Your task to perform on an android device: find snoozed emails in the gmail app Image 0: 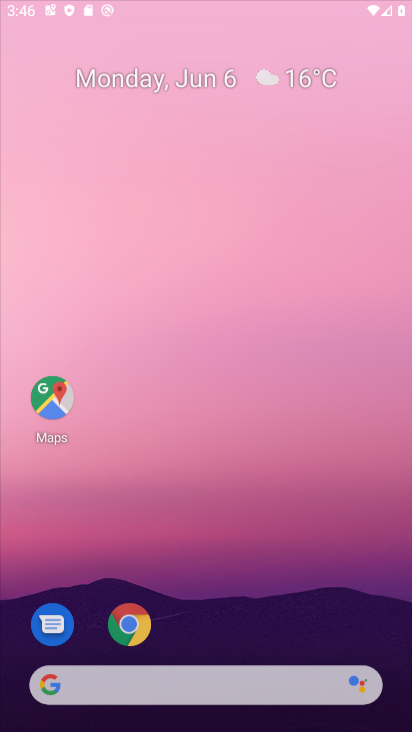
Step 0: press home button
Your task to perform on an android device: find snoozed emails in the gmail app Image 1: 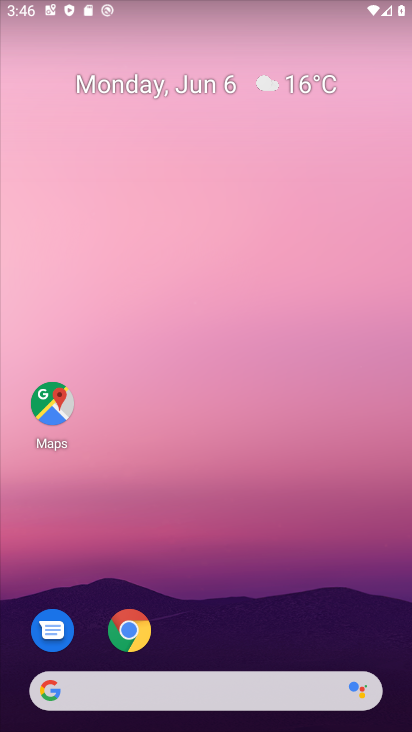
Step 1: drag from (336, 546) to (144, 31)
Your task to perform on an android device: find snoozed emails in the gmail app Image 2: 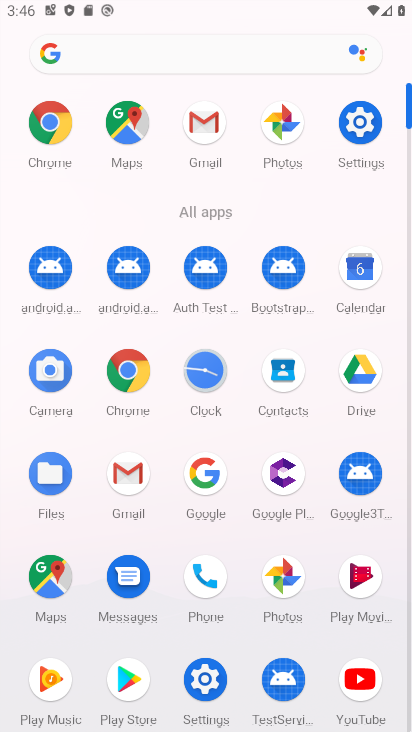
Step 2: click (200, 121)
Your task to perform on an android device: find snoozed emails in the gmail app Image 3: 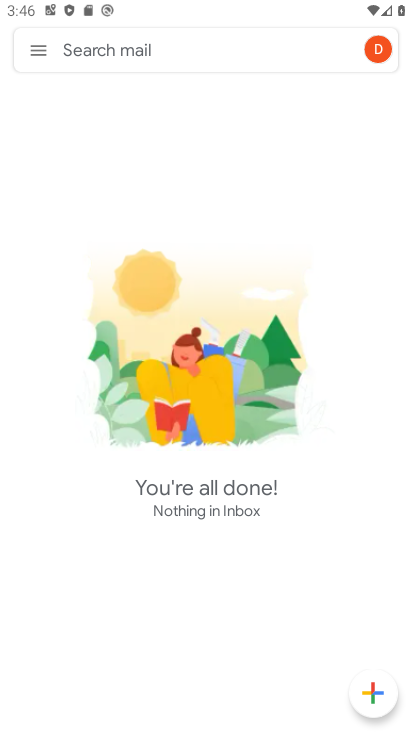
Step 3: click (36, 52)
Your task to perform on an android device: find snoozed emails in the gmail app Image 4: 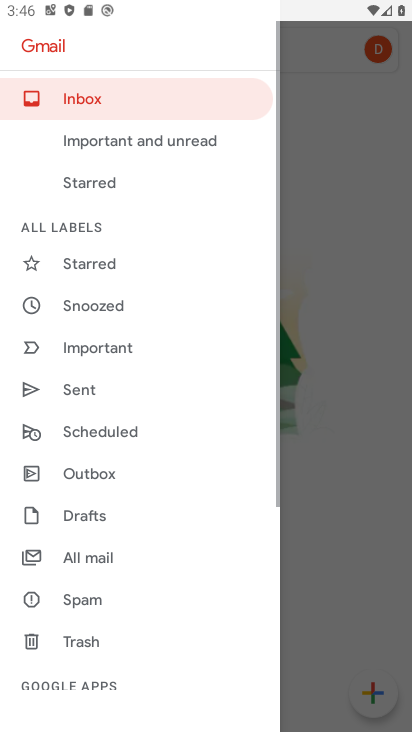
Step 4: click (105, 316)
Your task to perform on an android device: find snoozed emails in the gmail app Image 5: 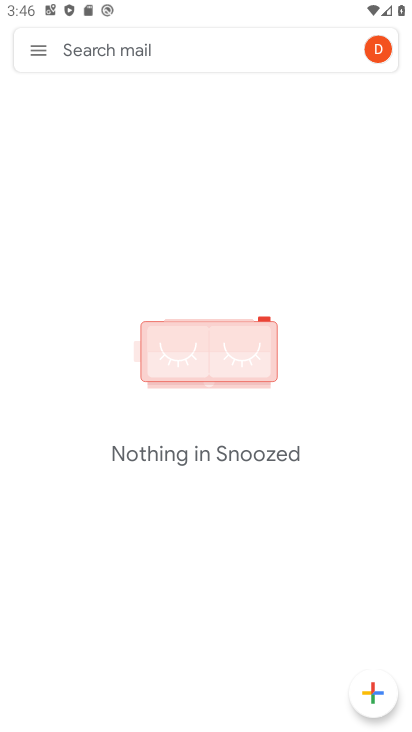
Step 5: task complete